Your task to perform on an android device: read, delete, or share a saved page in the chrome app Image 0: 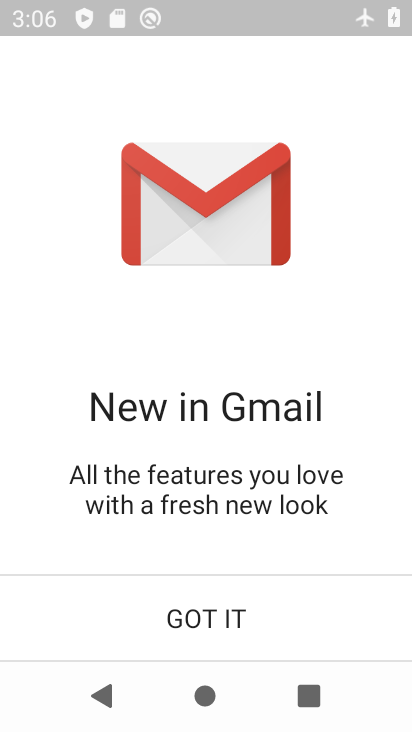
Step 0: drag from (327, 541) to (209, 87)
Your task to perform on an android device: read, delete, or share a saved page in the chrome app Image 1: 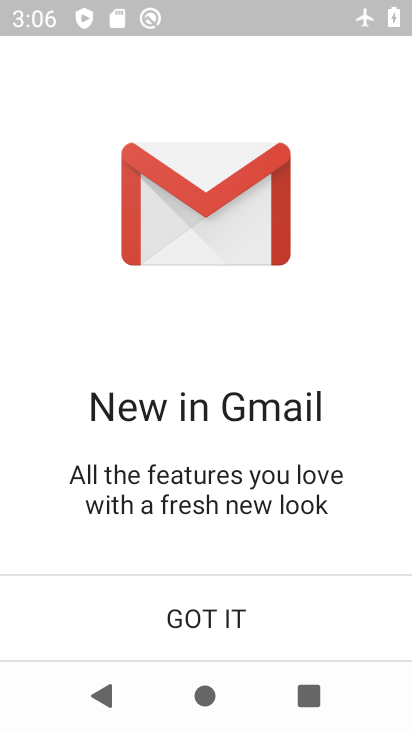
Step 1: click (213, 617)
Your task to perform on an android device: read, delete, or share a saved page in the chrome app Image 2: 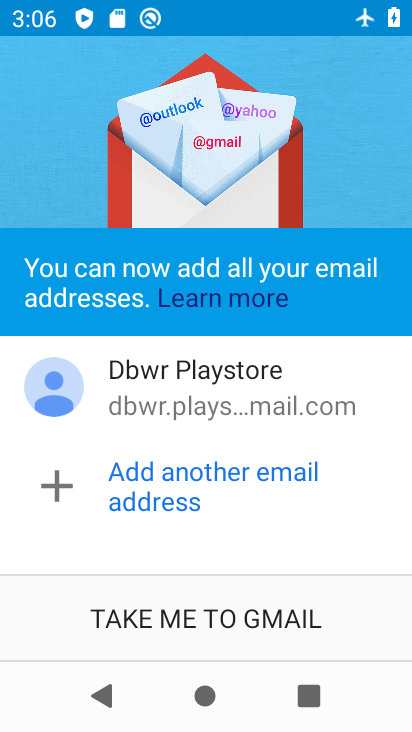
Step 2: click (206, 615)
Your task to perform on an android device: read, delete, or share a saved page in the chrome app Image 3: 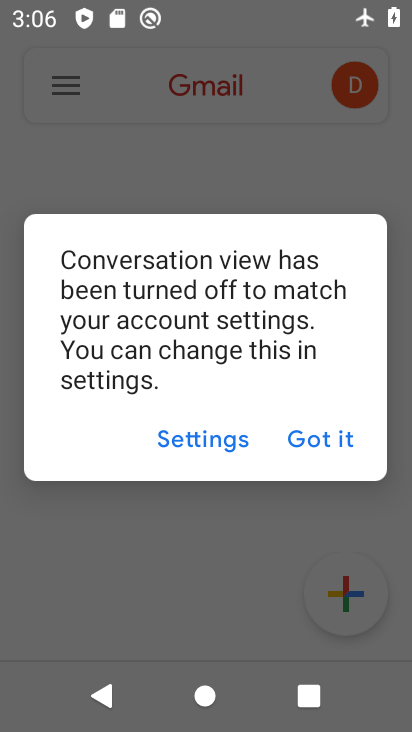
Step 3: press home button
Your task to perform on an android device: read, delete, or share a saved page in the chrome app Image 4: 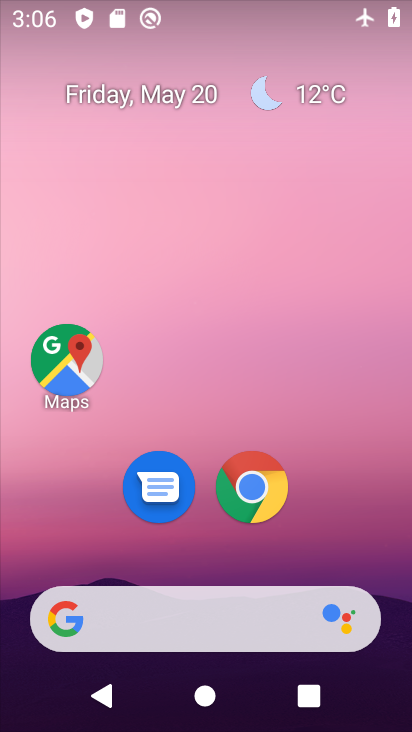
Step 4: drag from (293, 557) to (291, 282)
Your task to perform on an android device: read, delete, or share a saved page in the chrome app Image 5: 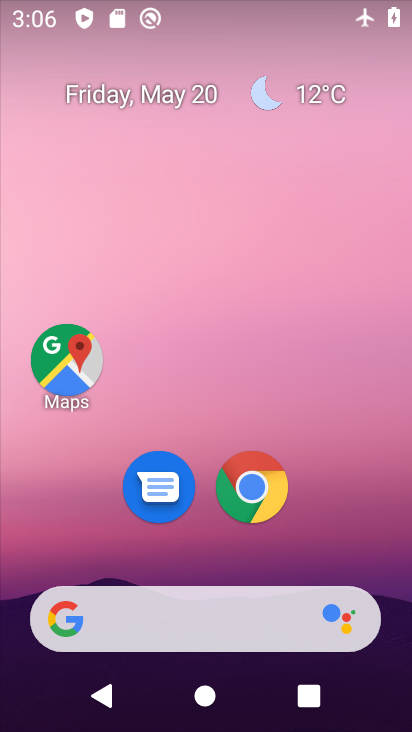
Step 5: drag from (300, 537) to (303, 119)
Your task to perform on an android device: read, delete, or share a saved page in the chrome app Image 6: 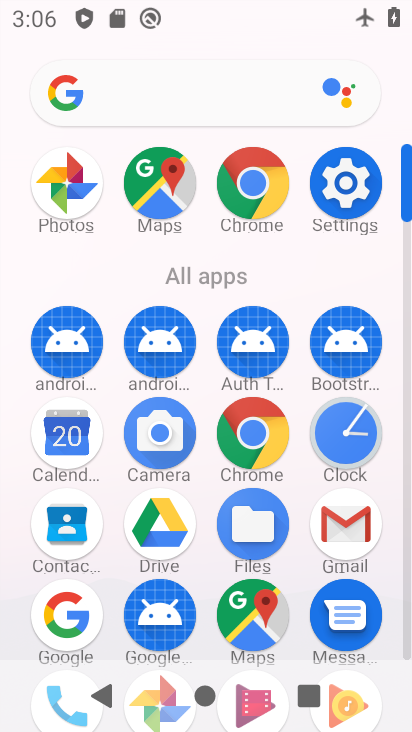
Step 6: drag from (287, 510) to (285, 323)
Your task to perform on an android device: read, delete, or share a saved page in the chrome app Image 7: 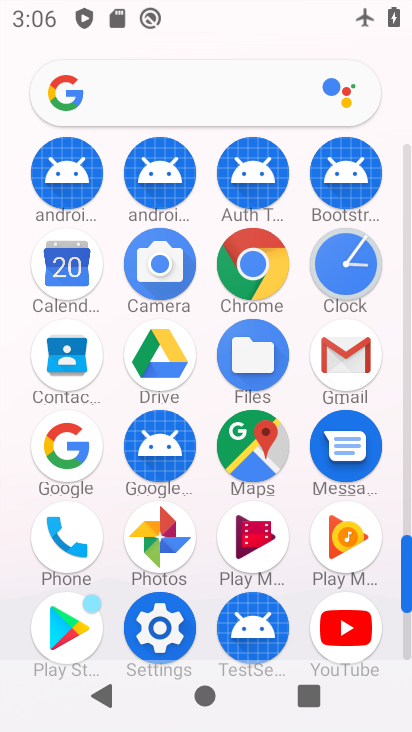
Step 7: drag from (291, 280) to (247, 487)
Your task to perform on an android device: read, delete, or share a saved page in the chrome app Image 8: 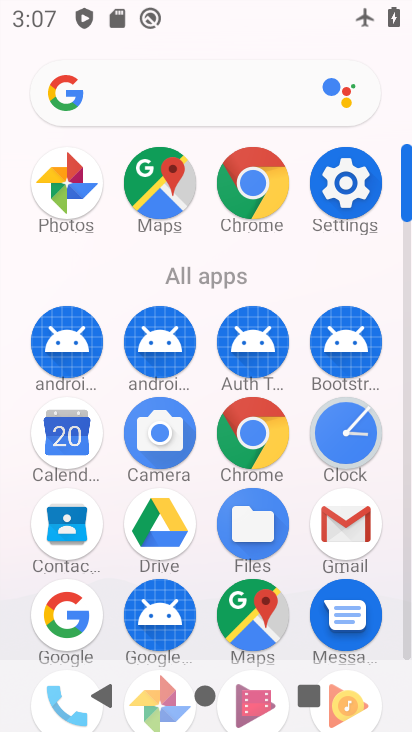
Step 8: drag from (289, 598) to (325, 388)
Your task to perform on an android device: read, delete, or share a saved page in the chrome app Image 9: 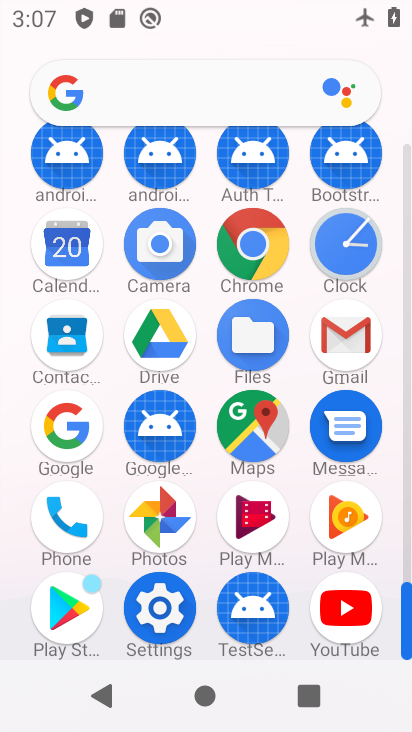
Step 9: drag from (315, 338) to (286, 520)
Your task to perform on an android device: read, delete, or share a saved page in the chrome app Image 10: 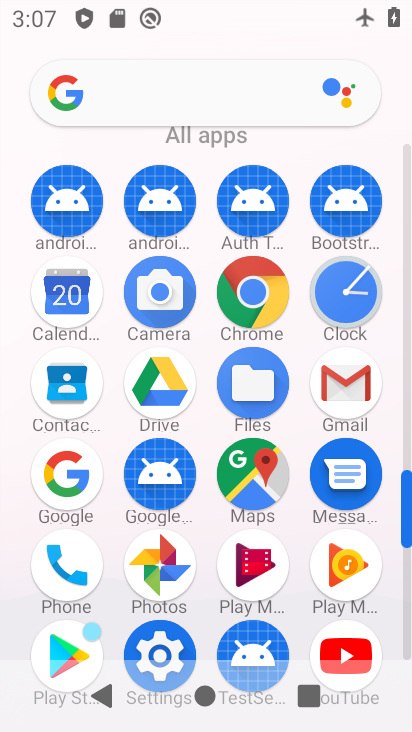
Step 10: click (239, 295)
Your task to perform on an android device: read, delete, or share a saved page in the chrome app Image 11: 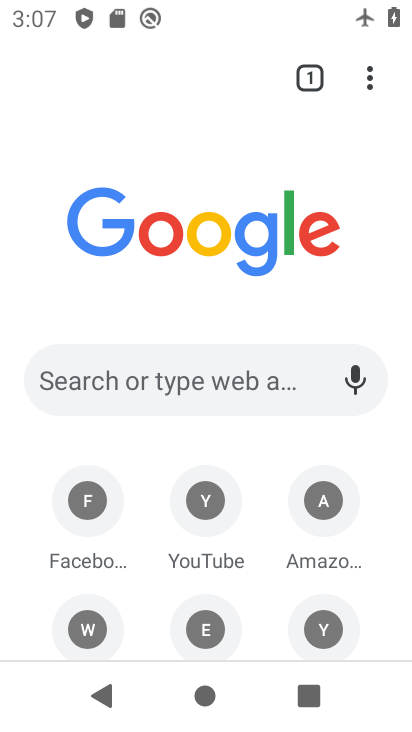
Step 11: click (367, 85)
Your task to perform on an android device: read, delete, or share a saved page in the chrome app Image 12: 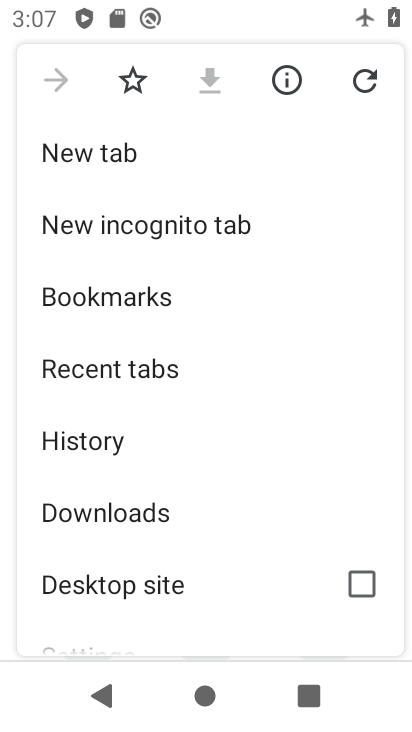
Step 12: task complete